Your task to perform on an android device: toggle translation in the chrome app Image 0: 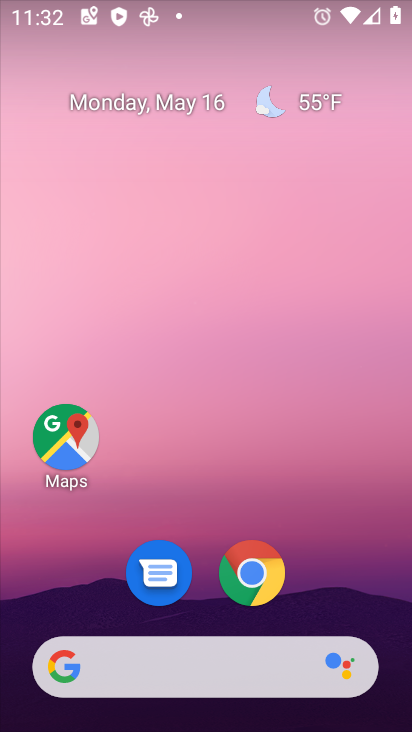
Step 0: click (274, 566)
Your task to perform on an android device: toggle translation in the chrome app Image 1: 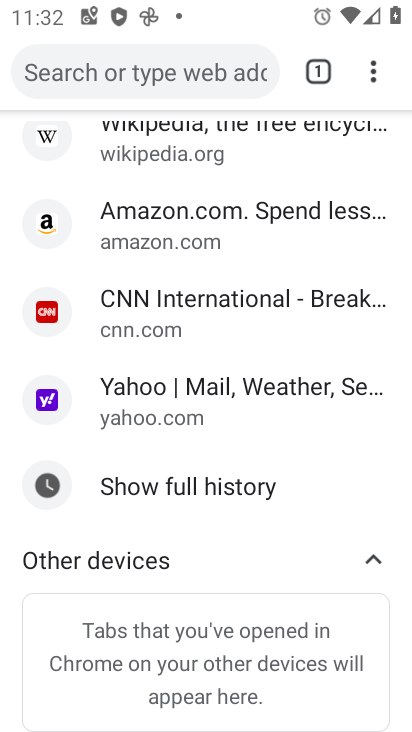
Step 1: click (380, 81)
Your task to perform on an android device: toggle translation in the chrome app Image 2: 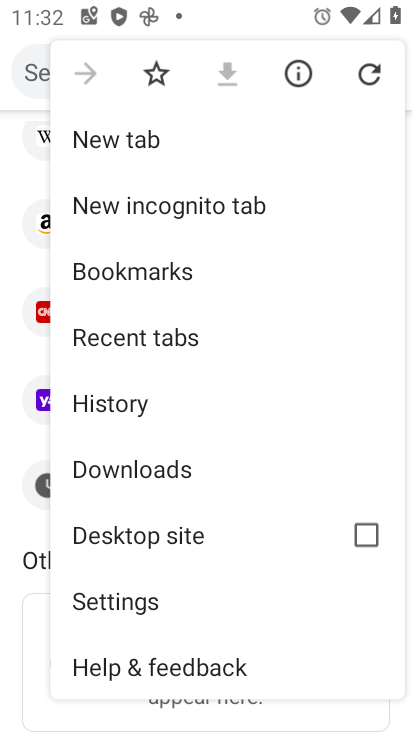
Step 2: click (175, 592)
Your task to perform on an android device: toggle translation in the chrome app Image 3: 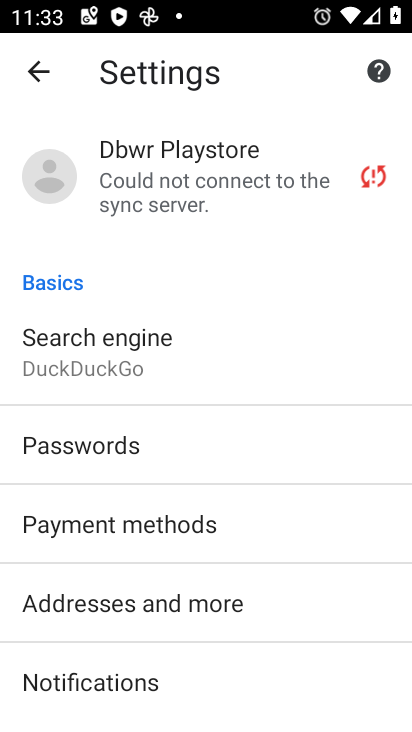
Step 3: drag from (301, 637) to (278, 443)
Your task to perform on an android device: toggle translation in the chrome app Image 4: 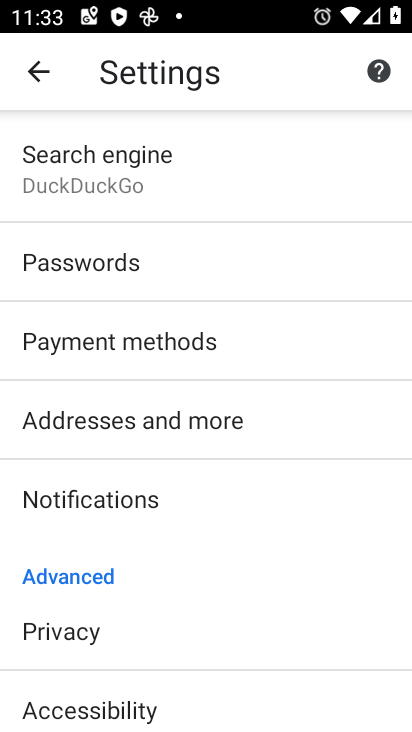
Step 4: drag from (204, 568) to (145, 269)
Your task to perform on an android device: toggle translation in the chrome app Image 5: 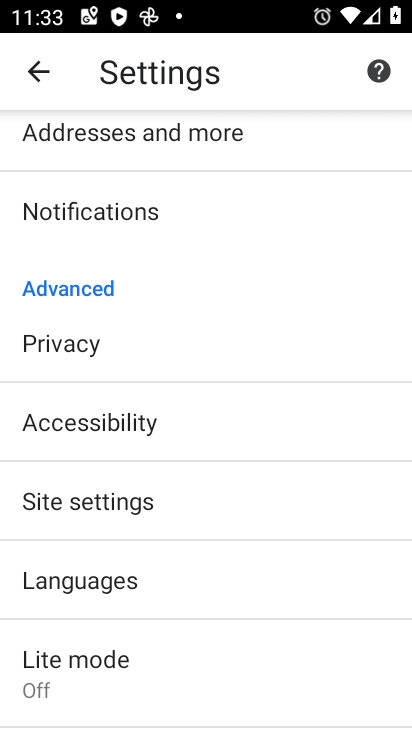
Step 5: drag from (206, 554) to (186, 323)
Your task to perform on an android device: toggle translation in the chrome app Image 6: 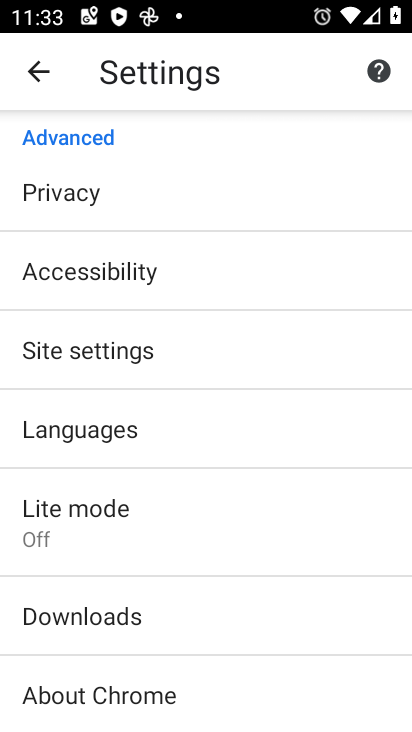
Step 6: click (125, 434)
Your task to perform on an android device: toggle translation in the chrome app Image 7: 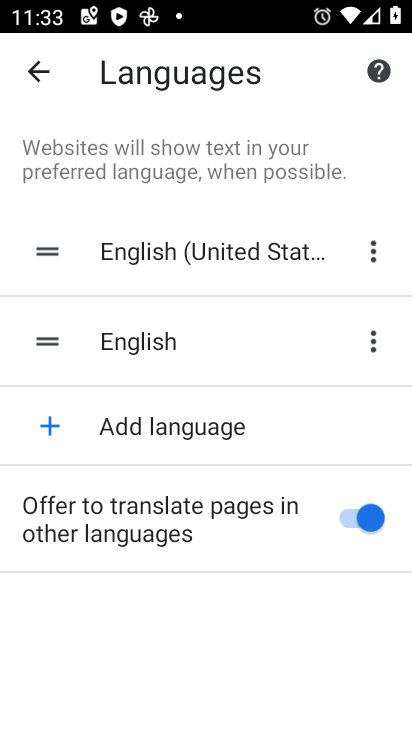
Step 7: click (372, 537)
Your task to perform on an android device: toggle translation in the chrome app Image 8: 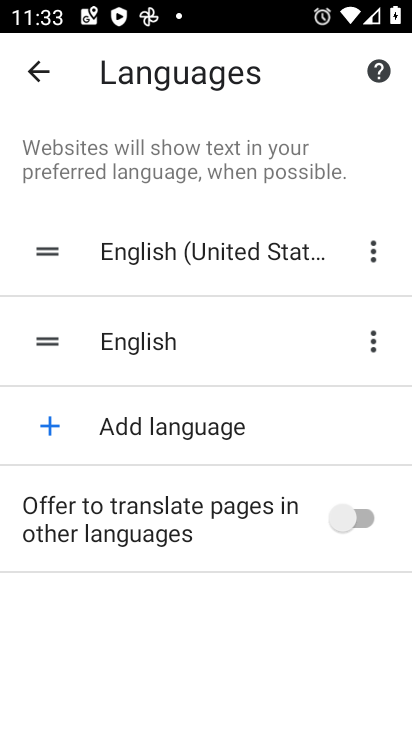
Step 8: task complete